Your task to perform on an android device: View the shopping cart on ebay. Add razer deathadder to the cart on ebay, then select checkout. Image 0: 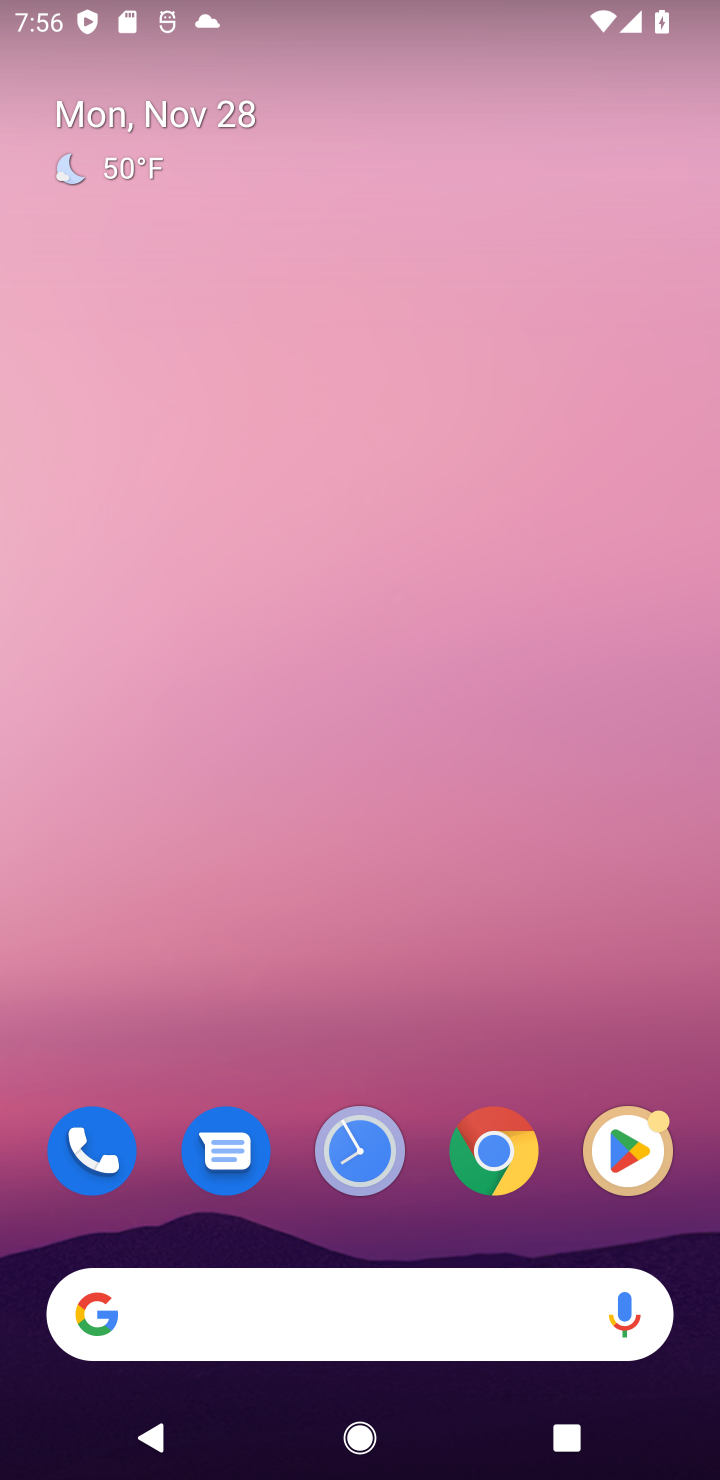
Step 0: click (293, 1352)
Your task to perform on an android device: View the shopping cart on ebay. Add razer deathadder to the cart on ebay, then select checkout. Image 1: 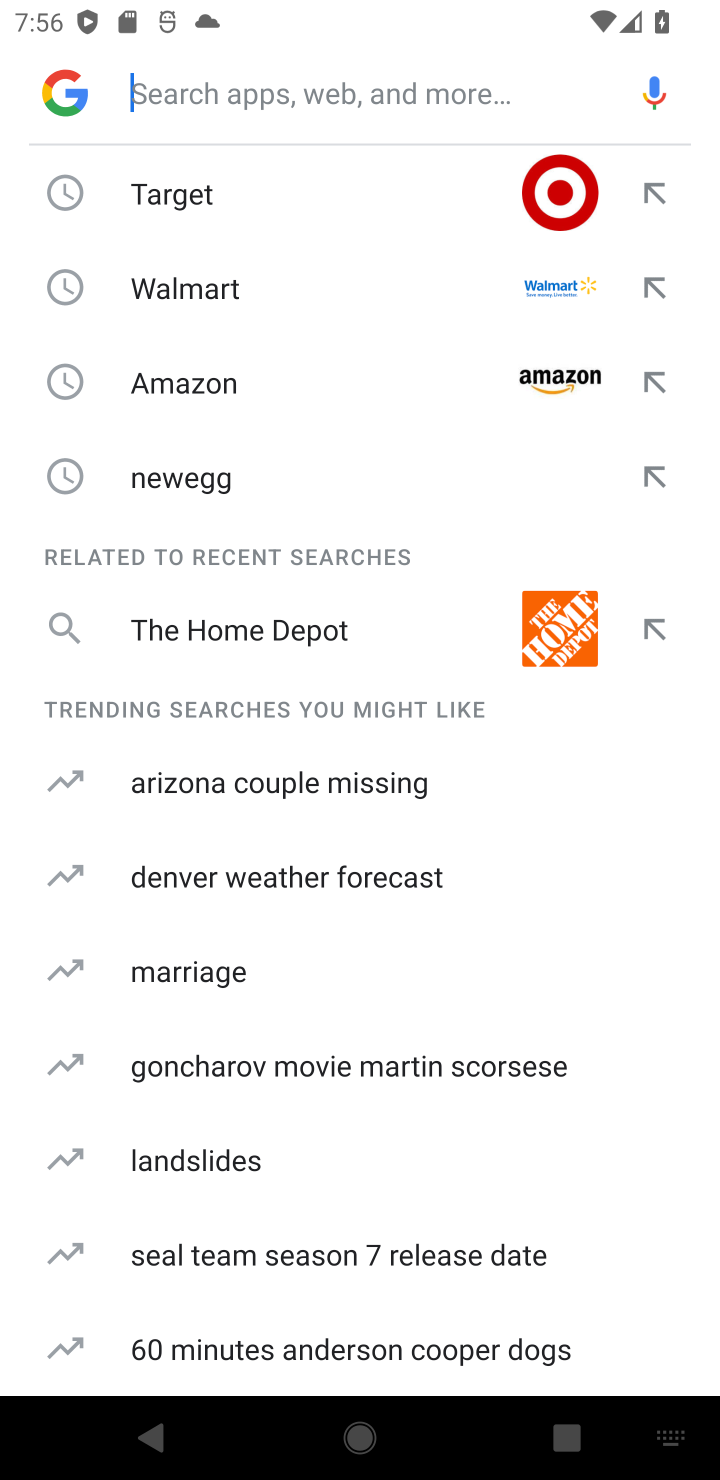
Step 1: type "ebay.com"
Your task to perform on an android device: View the shopping cart on ebay. Add razer deathadder to the cart on ebay, then select checkout. Image 2: 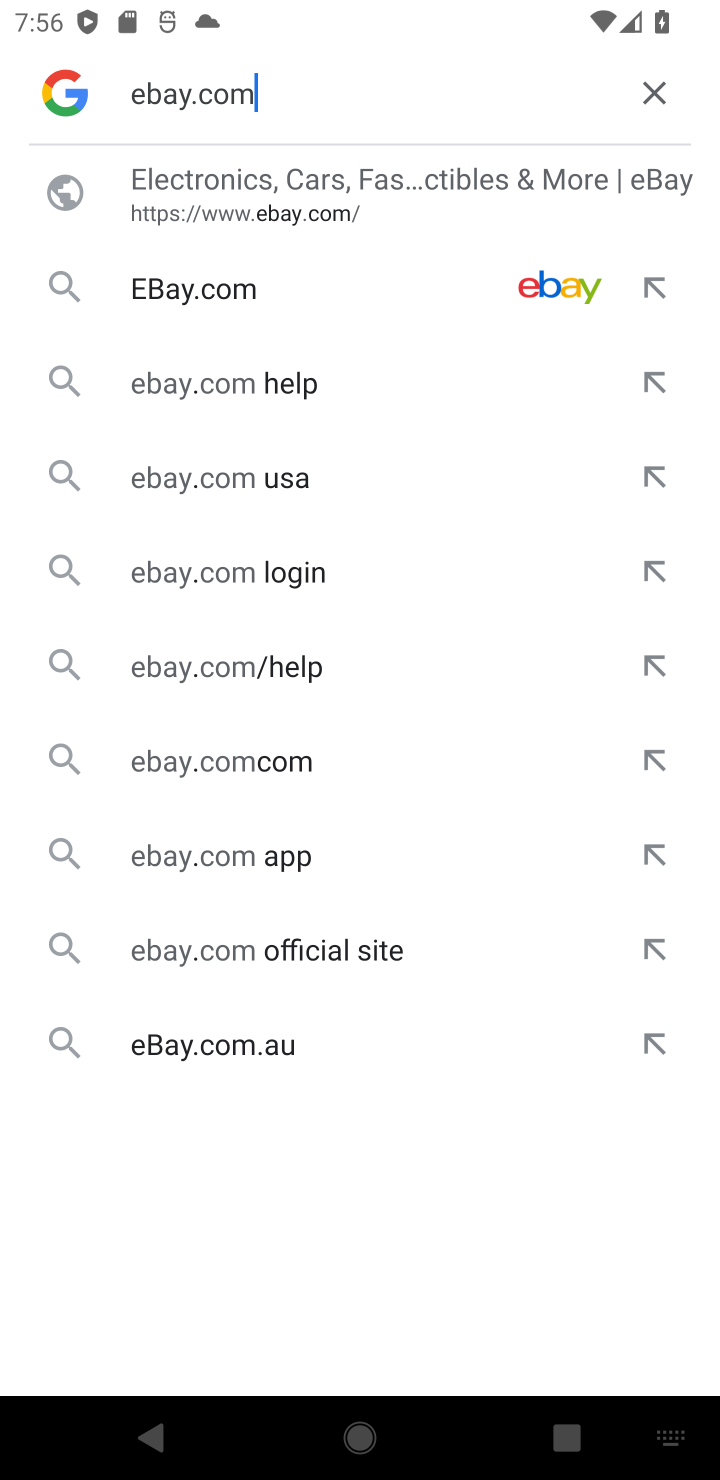
Step 2: click (155, 164)
Your task to perform on an android device: View the shopping cart on ebay. Add razer deathadder to the cart on ebay, then select checkout. Image 3: 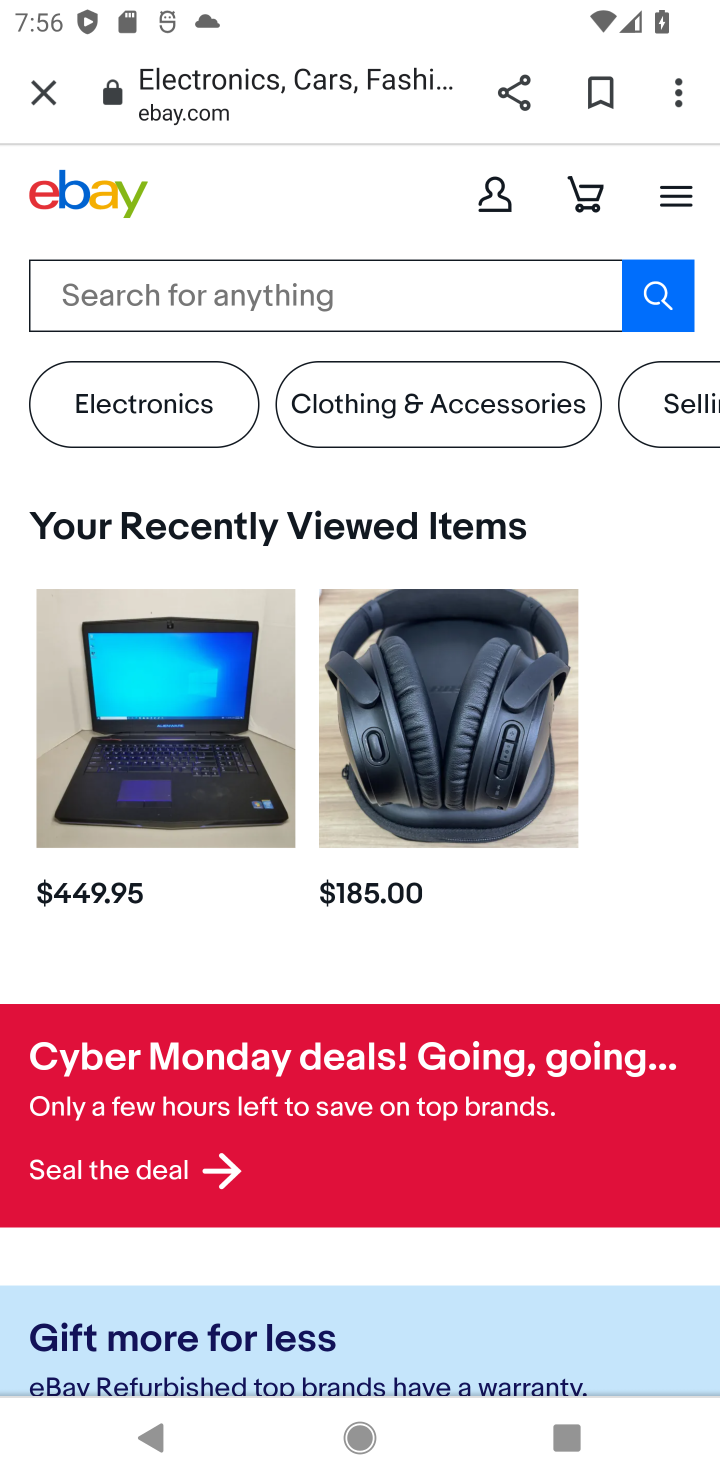
Step 3: click (183, 297)
Your task to perform on an android device: View the shopping cart on ebay. Add razer deathadder to the cart on ebay, then select checkout. Image 4: 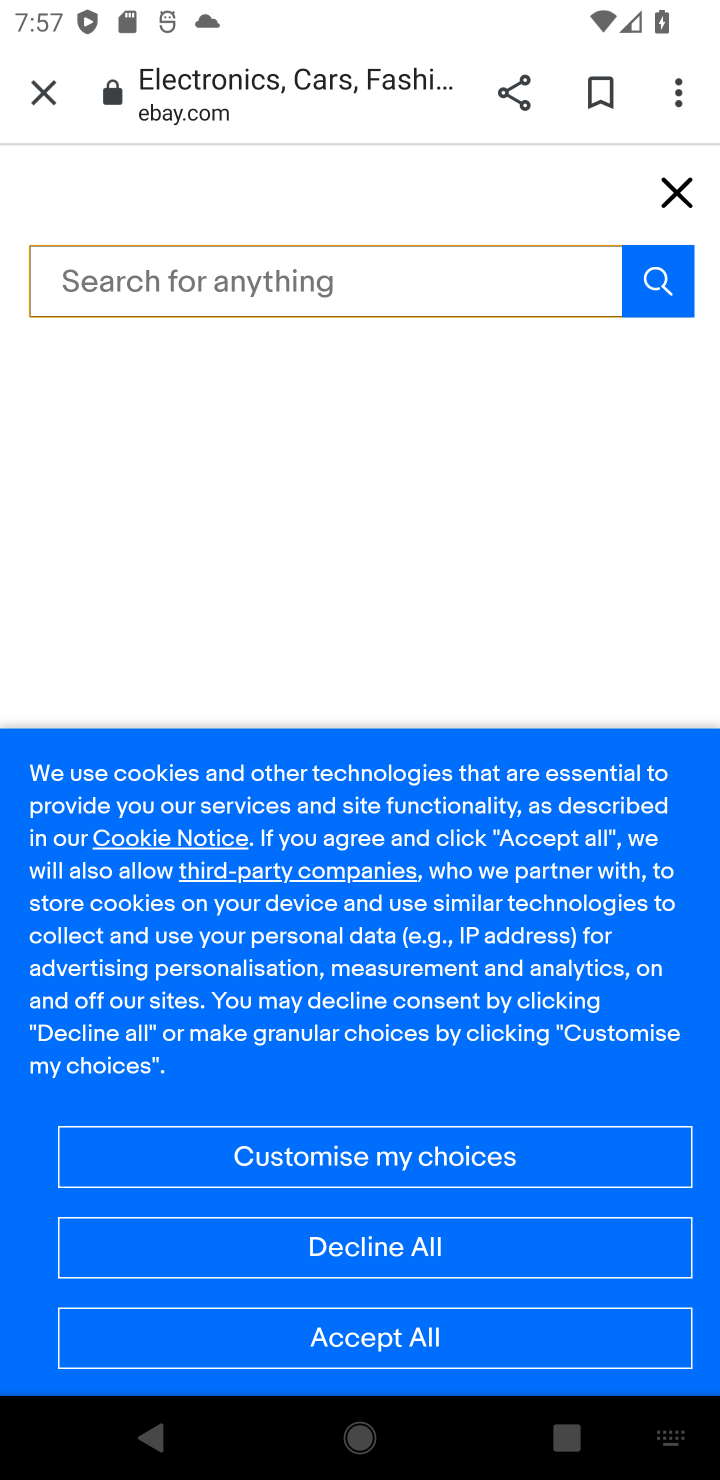
Step 4: type "razer deadthadder"
Your task to perform on an android device: View the shopping cart on ebay. Add razer deathadder to the cart on ebay, then select checkout. Image 5: 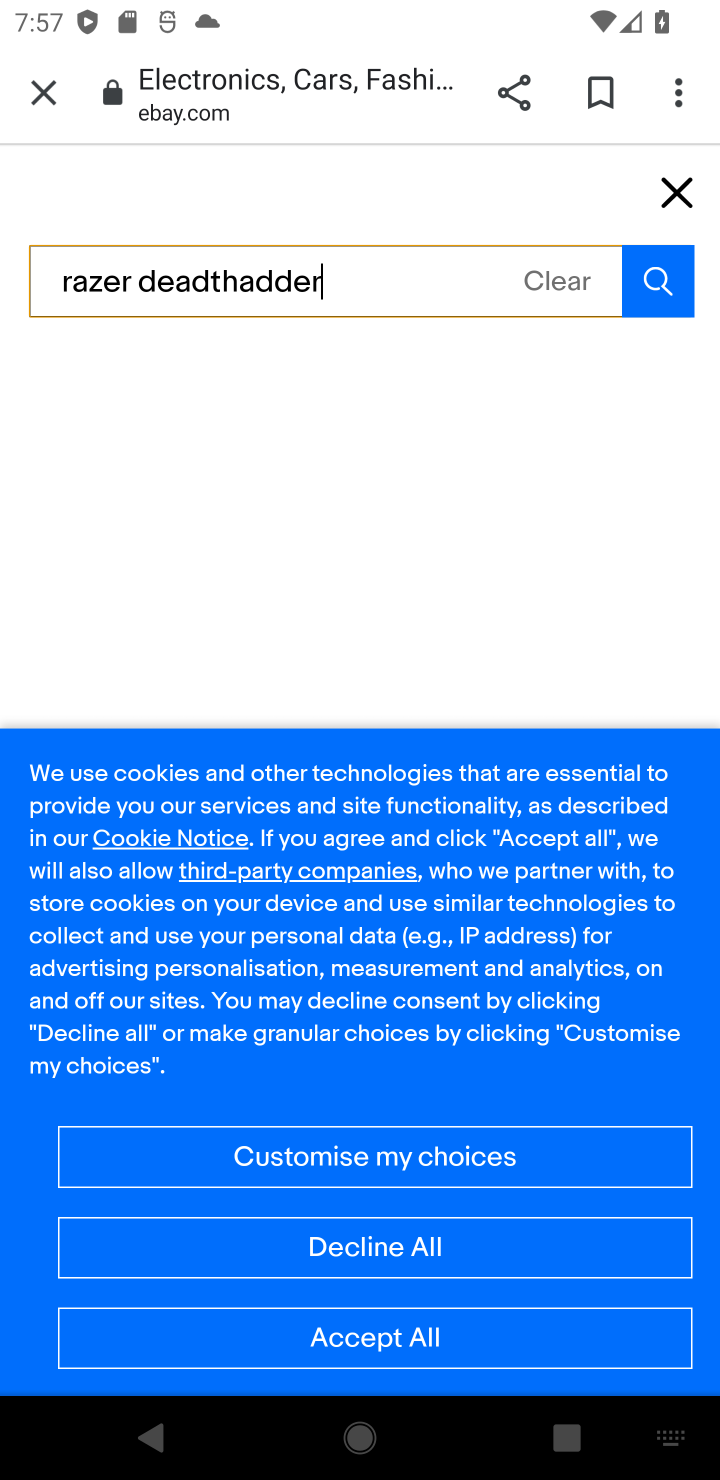
Step 5: click (634, 303)
Your task to perform on an android device: View the shopping cart on ebay. Add razer deathadder to the cart on ebay, then select checkout. Image 6: 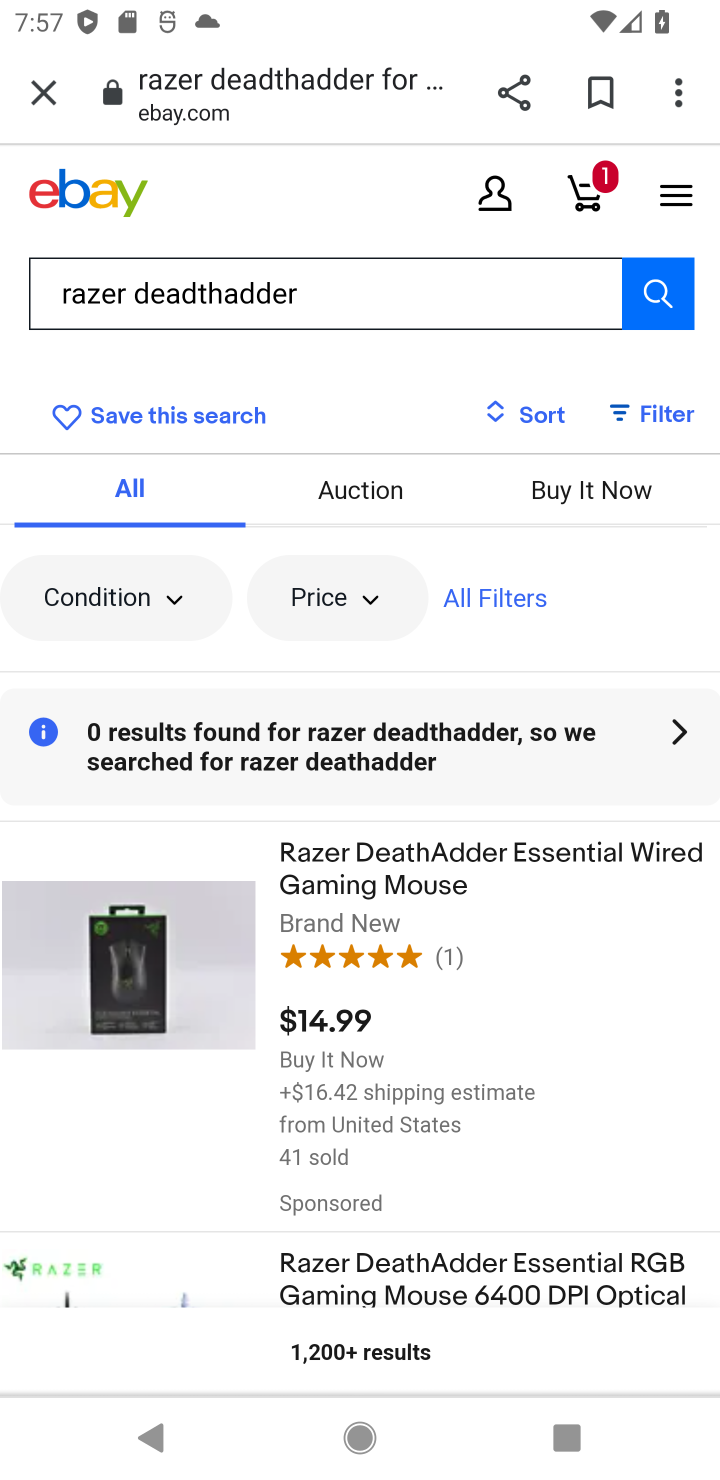
Step 6: click (381, 882)
Your task to perform on an android device: View the shopping cart on ebay. Add razer deathadder to the cart on ebay, then select checkout. Image 7: 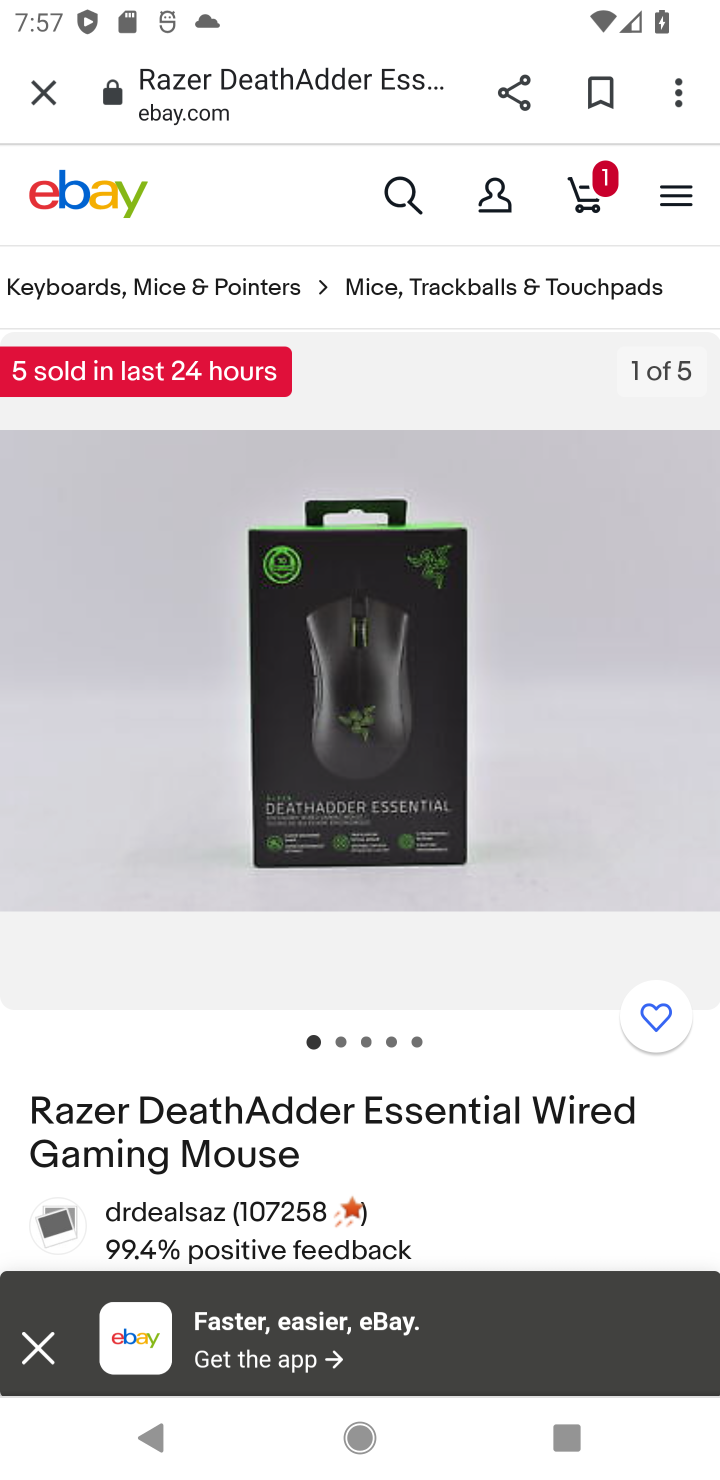
Step 7: drag from (468, 1286) to (490, 561)
Your task to perform on an android device: View the shopping cart on ebay. Add razer deathadder to the cart on ebay, then select checkout. Image 8: 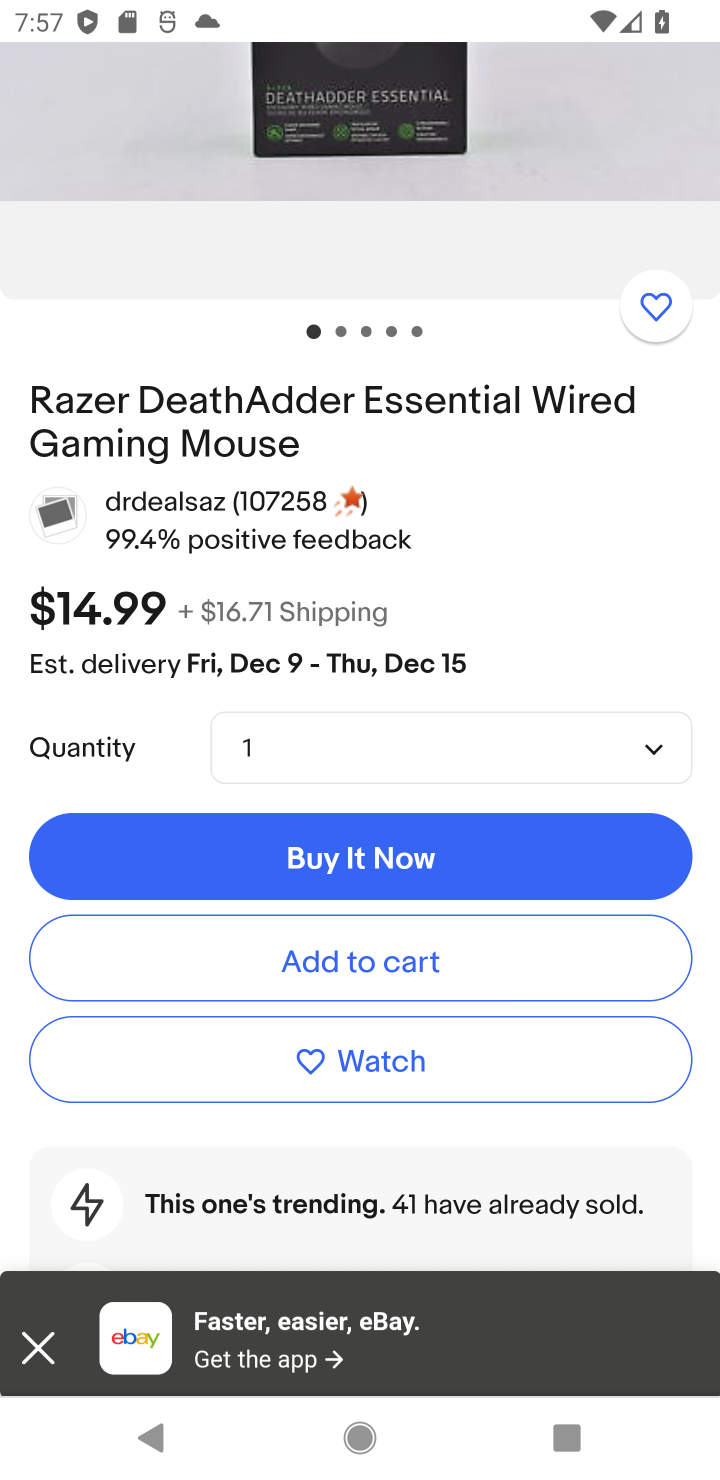
Step 8: click (349, 954)
Your task to perform on an android device: View the shopping cart on ebay. Add razer deathadder to the cart on ebay, then select checkout. Image 9: 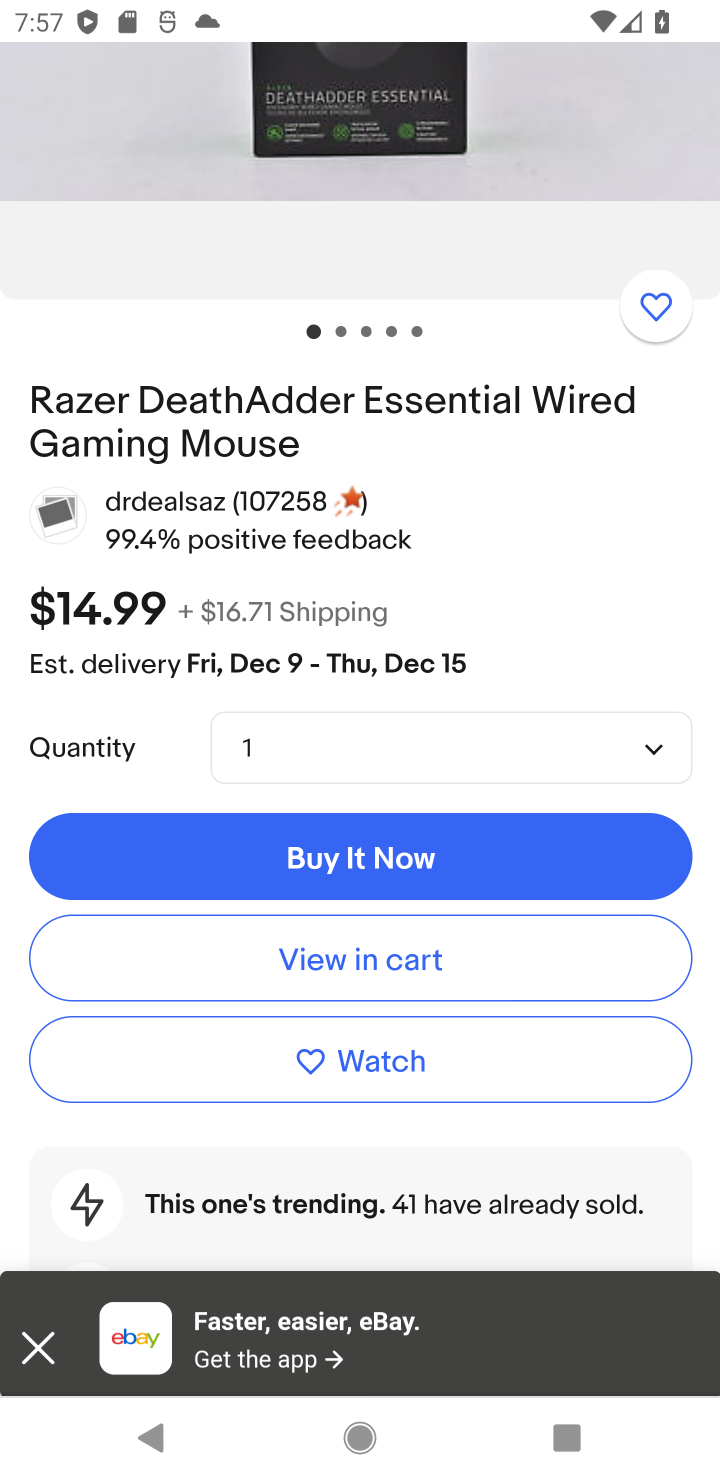
Step 9: task complete